Your task to perform on an android device: turn notification dots off Image 0: 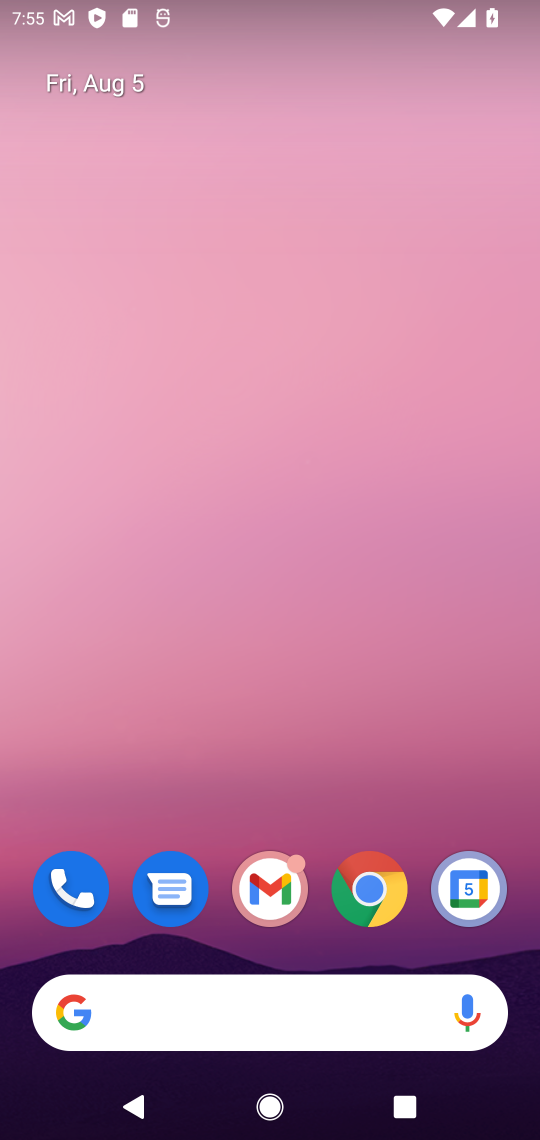
Step 0: drag from (258, 919) to (276, 187)
Your task to perform on an android device: turn notification dots off Image 1: 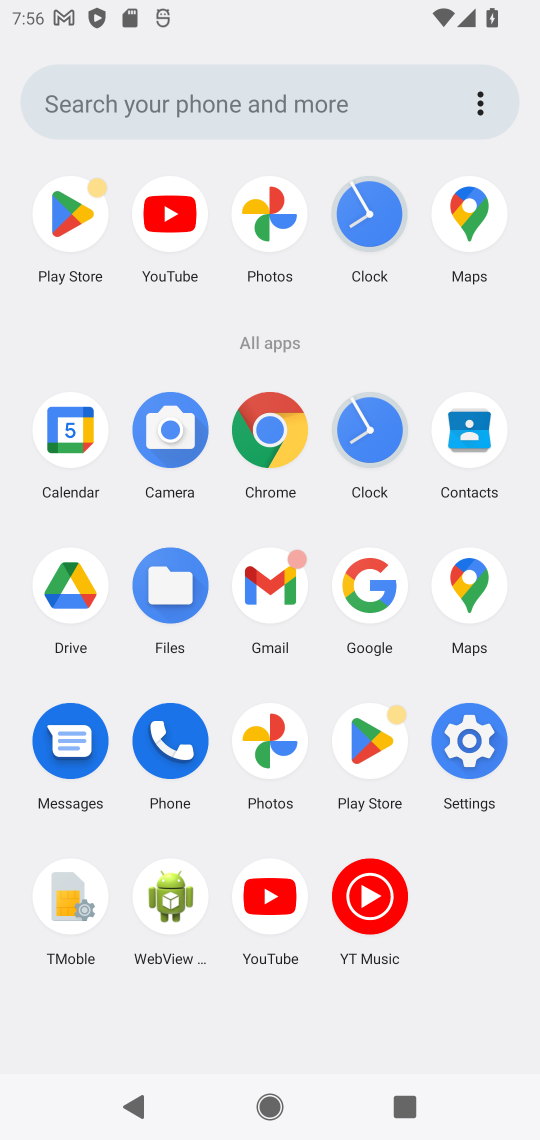
Step 1: click (484, 733)
Your task to perform on an android device: turn notification dots off Image 2: 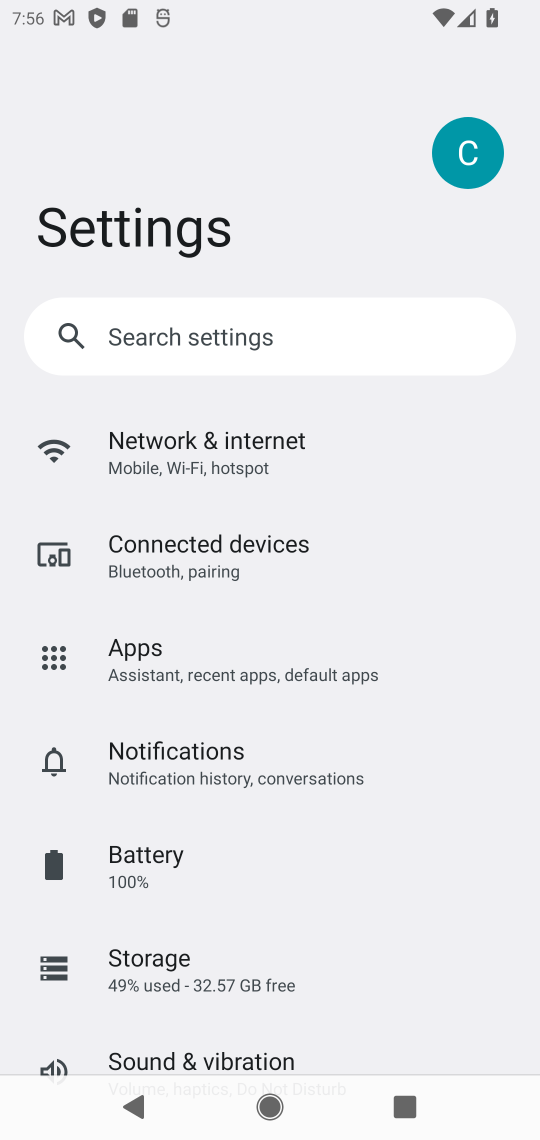
Step 2: click (317, 341)
Your task to perform on an android device: turn notification dots off Image 3: 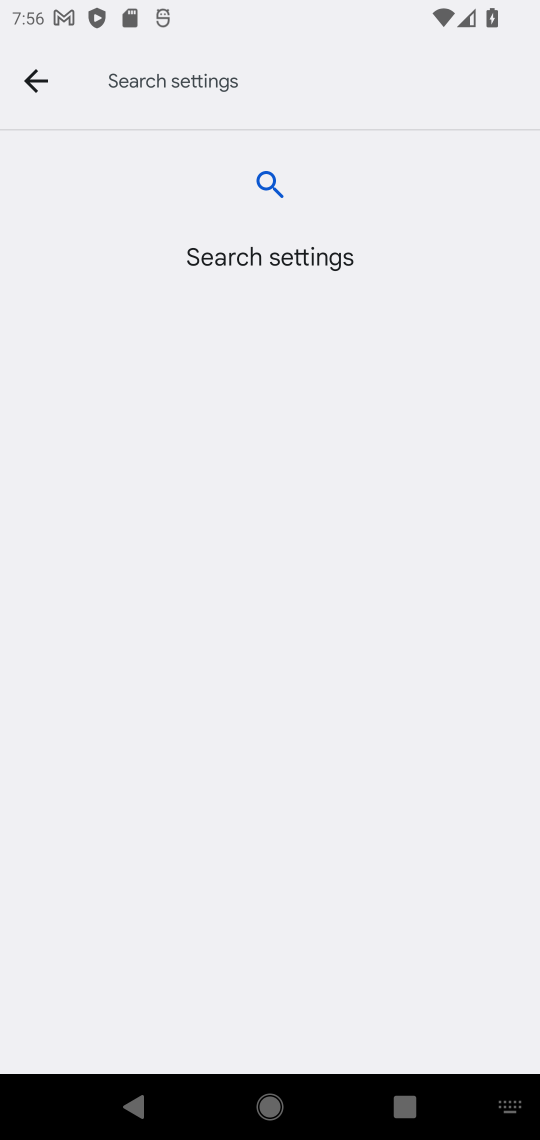
Step 3: type "notification dots  "
Your task to perform on an android device: turn notification dots off Image 4: 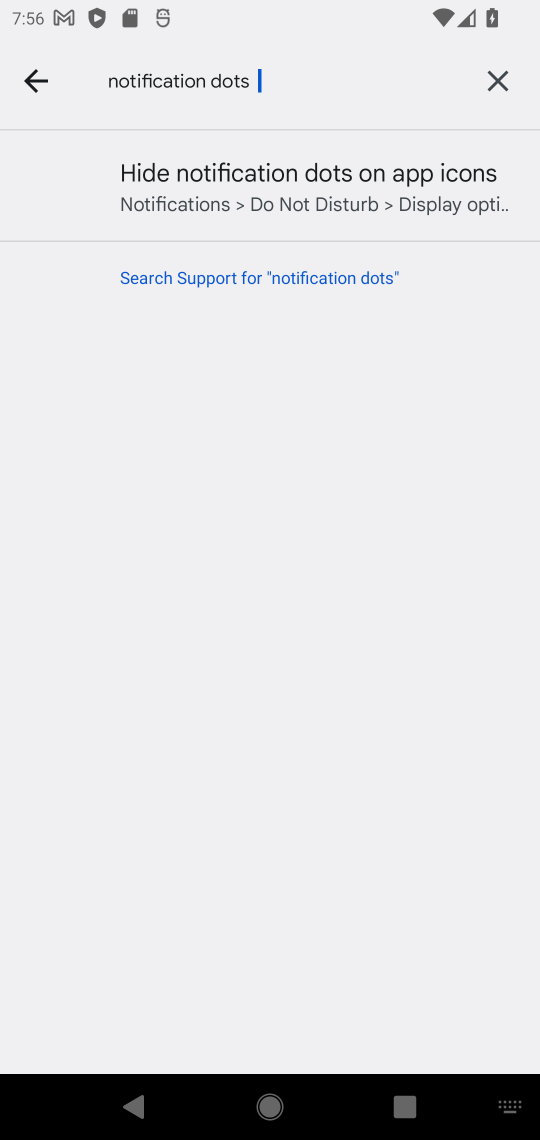
Step 4: click (287, 191)
Your task to perform on an android device: turn notification dots off Image 5: 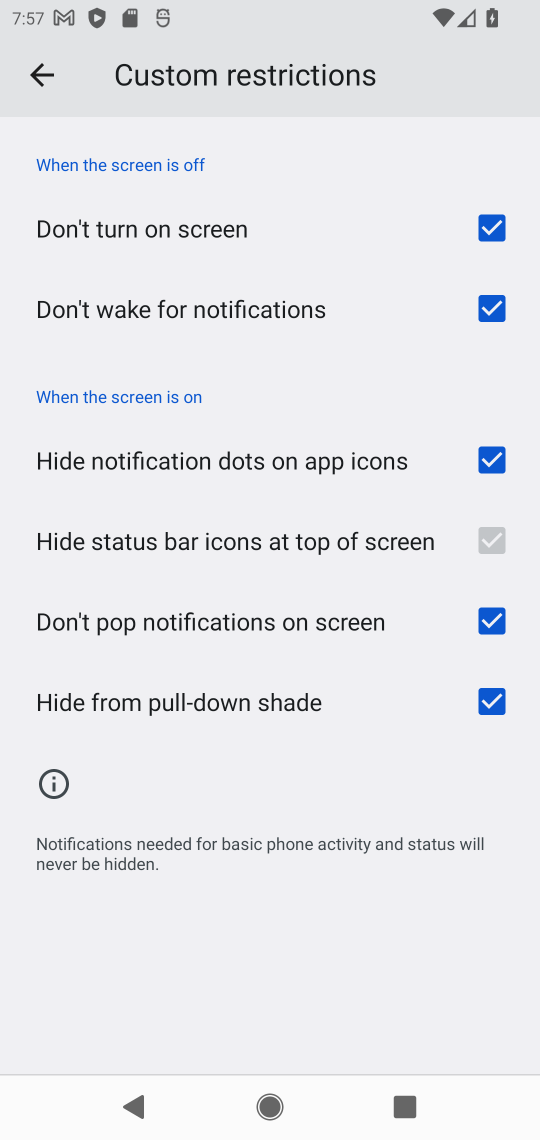
Step 5: task complete